Your task to perform on an android device: show emergency info Image 0: 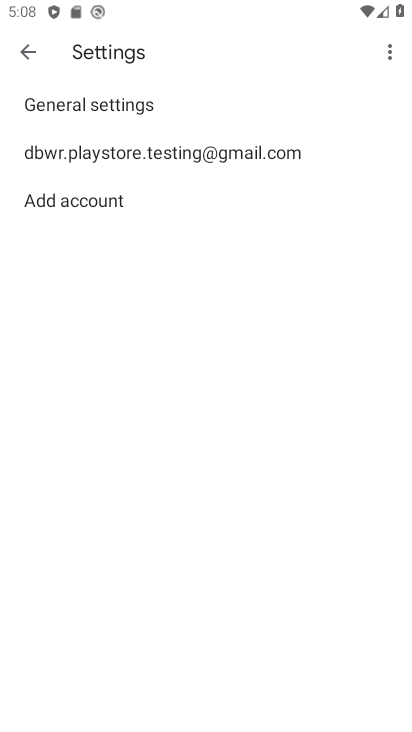
Step 0: press back button
Your task to perform on an android device: show emergency info Image 1: 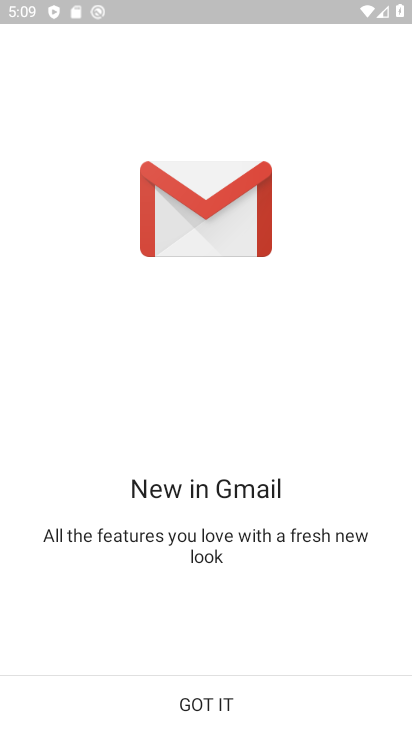
Step 1: press back button
Your task to perform on an android device: show emergency info Image 2: 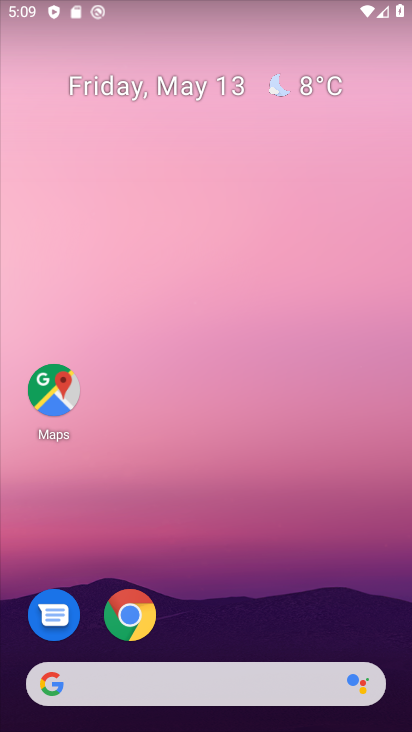
Step 2: drag from (228, 515) to (165, 4)
Your task to perform on an android device: show emergency info Image 3: 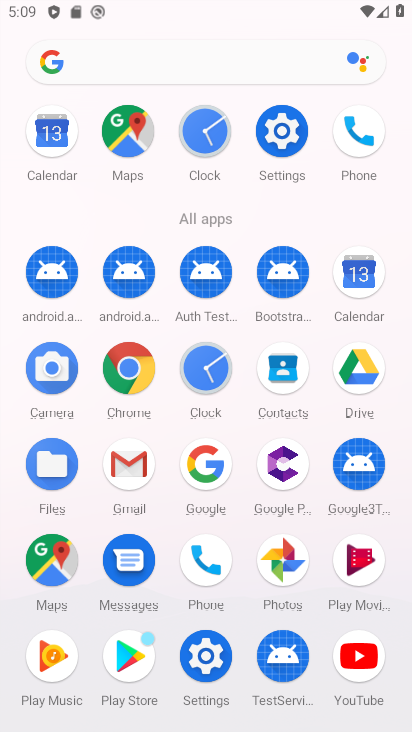
Step 3: drag from (15, 498) to (9, 152)
Your task to perform on an android device: show emergency info Image 4: 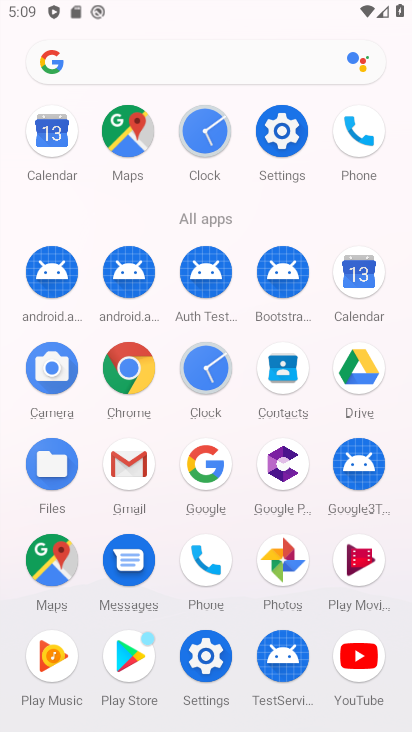
Step 4: click (202, 652)
Your task to perform on an android device: show emergency info Image 5: 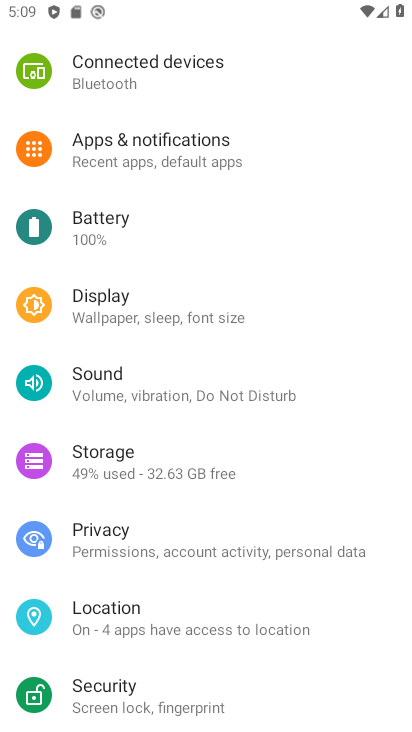
Step 5: drag from (224, 512) to (247, 52)
Your task to perform on an android device: show emergency info Image 6: 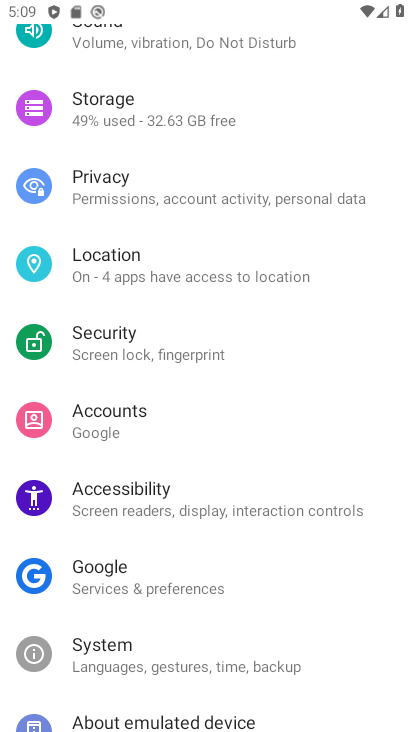
Step 6: drag from (227, 570) to (247, 72)
Your task to perform on an android device: show emergency info Image 7: 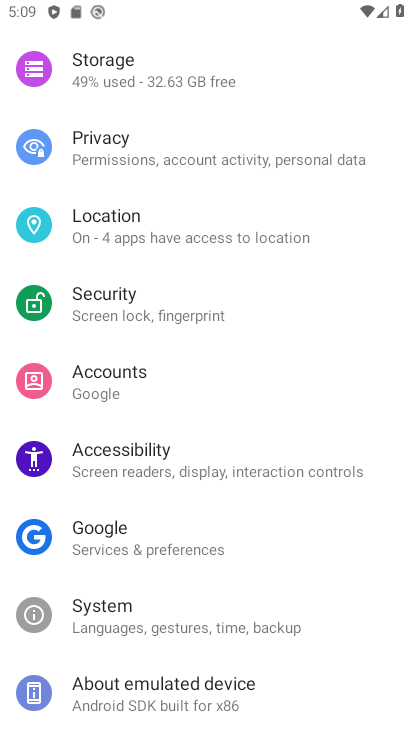
Step 7: drag from (236, 151) to (236, 636)
Your task to perform on an android device: show emergency info Image 8: 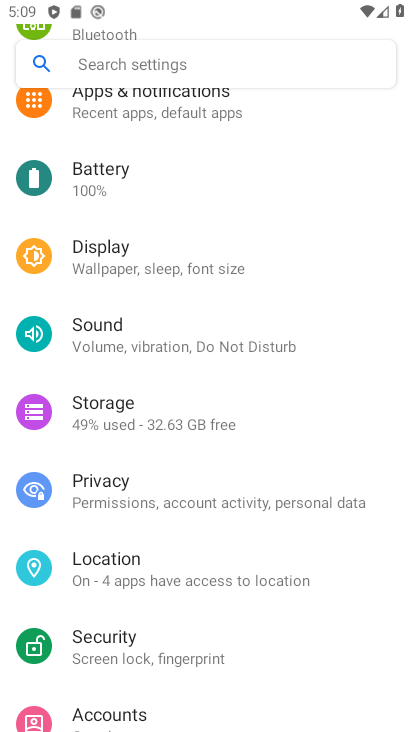
Step 8: drag from (224, 219) to (241, 679)
Your task to perform on an android device: show emergency info Image 9: 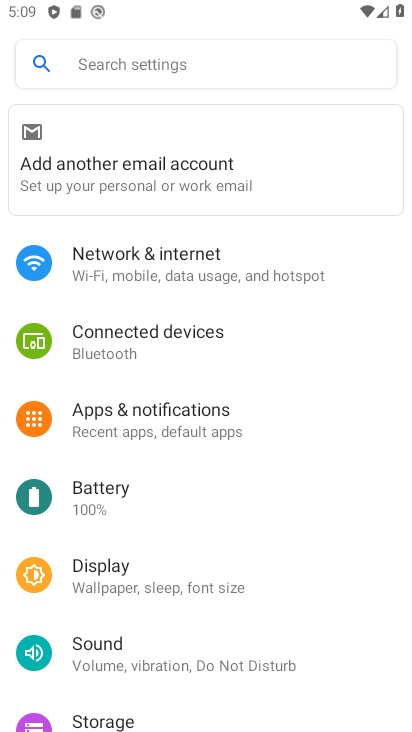
Step 9: drag from (270, 667) to (273, 120)
Your task to perform on an android device: show emergency info Image 10: 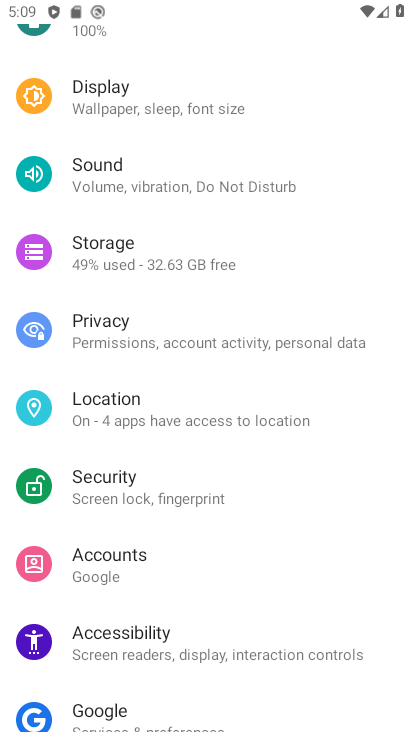
Step 10: drag from (246, 555) to (242, 74)
Your task to perform on an android device: show emergency info Image 11: 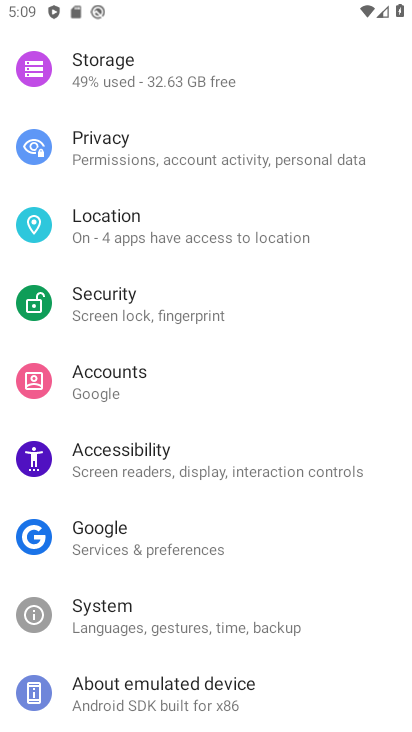
Step 11: click (153, 669)
Your task to perform on an android device: show emergency info Image 12: 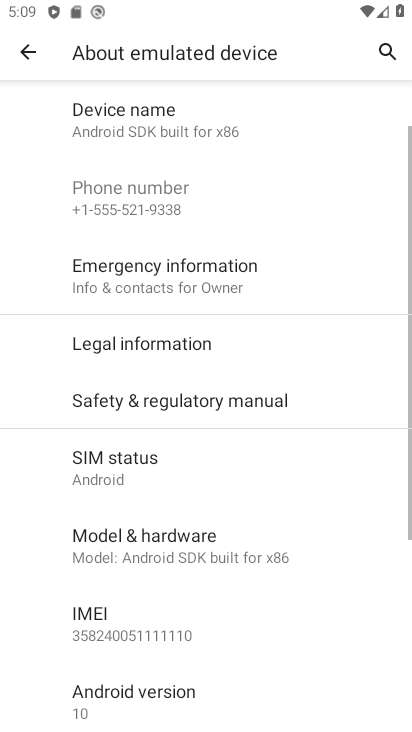
Step 12: task complete